Your task to perform on an android device: open app "Skype" (install if not already installed) Image 0: 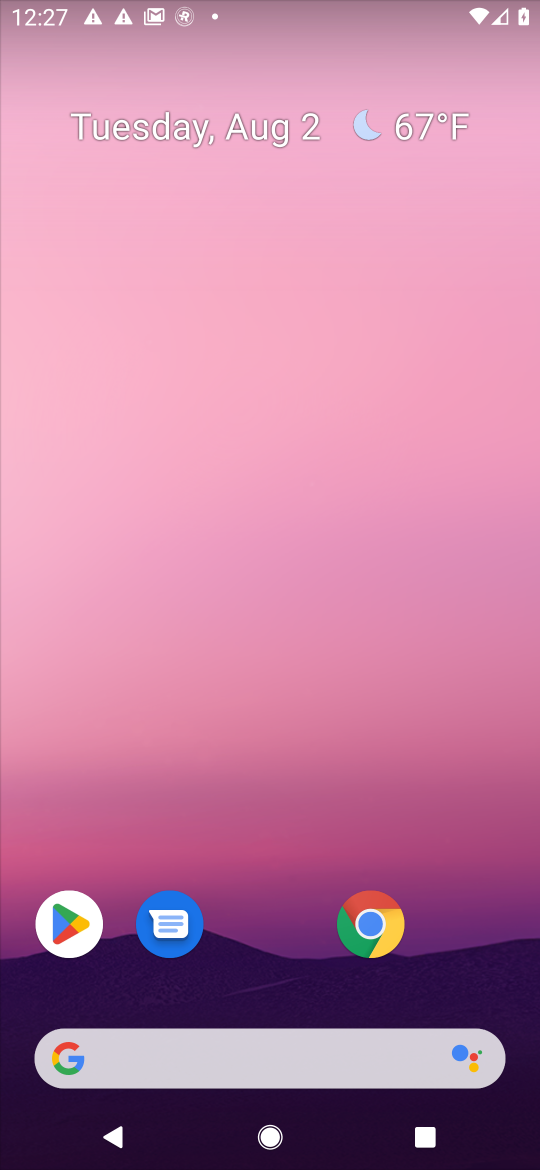
Step 0: press home button
Your task to perform on an android device: open app "Skype" (install if not already installed) Image 1: 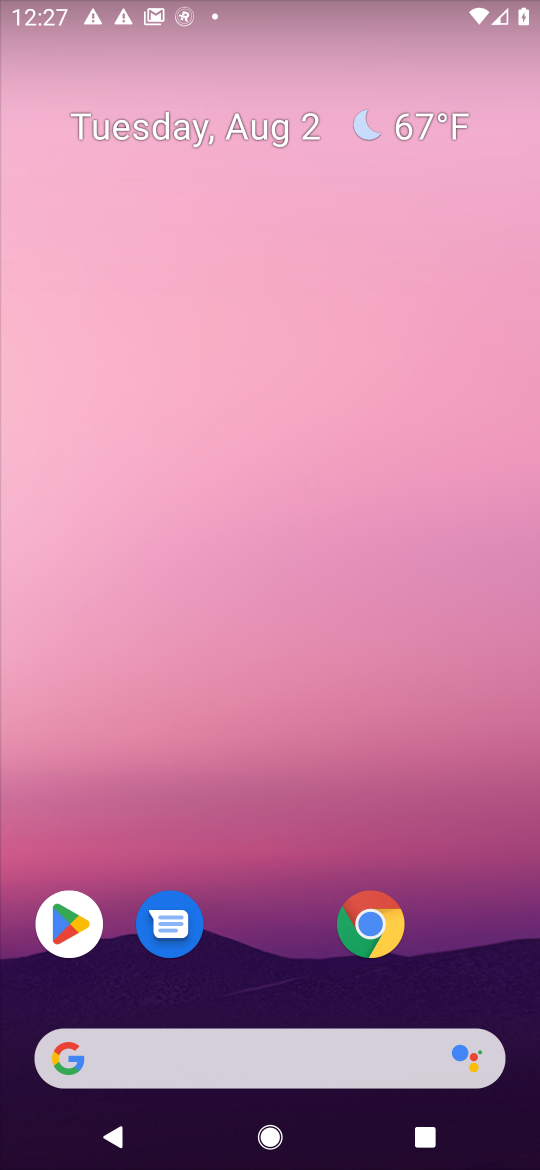
Step 1: click (57, 913)
Your task to perform on an android device: open app "Skype" (install if not already installed) Image 2: 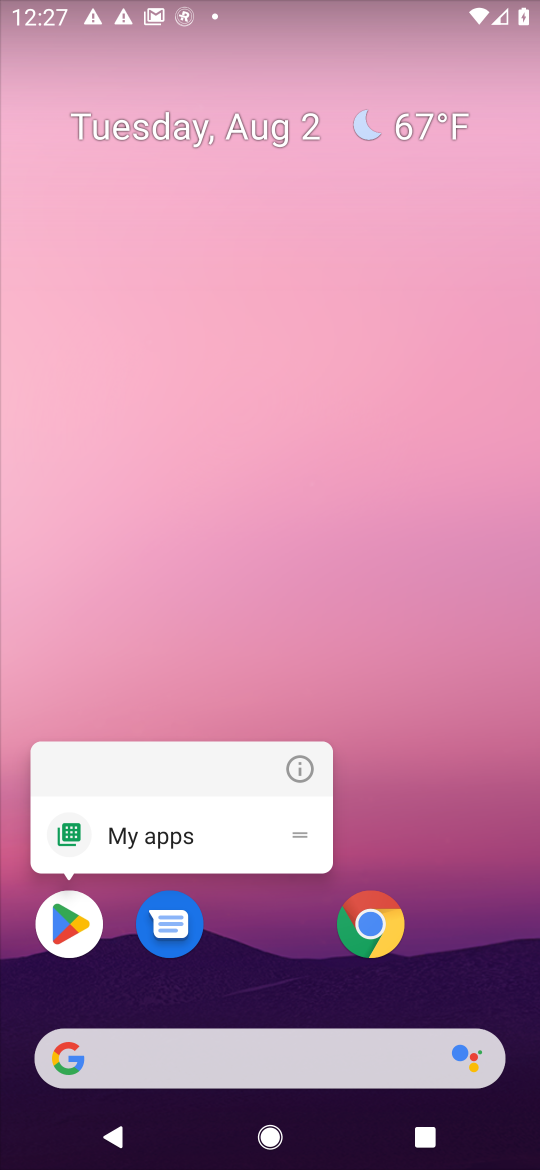
Step 2: click (70, 916)
Your task to perform on an android device: open app "Skype" (install if not already installed) Image 3: 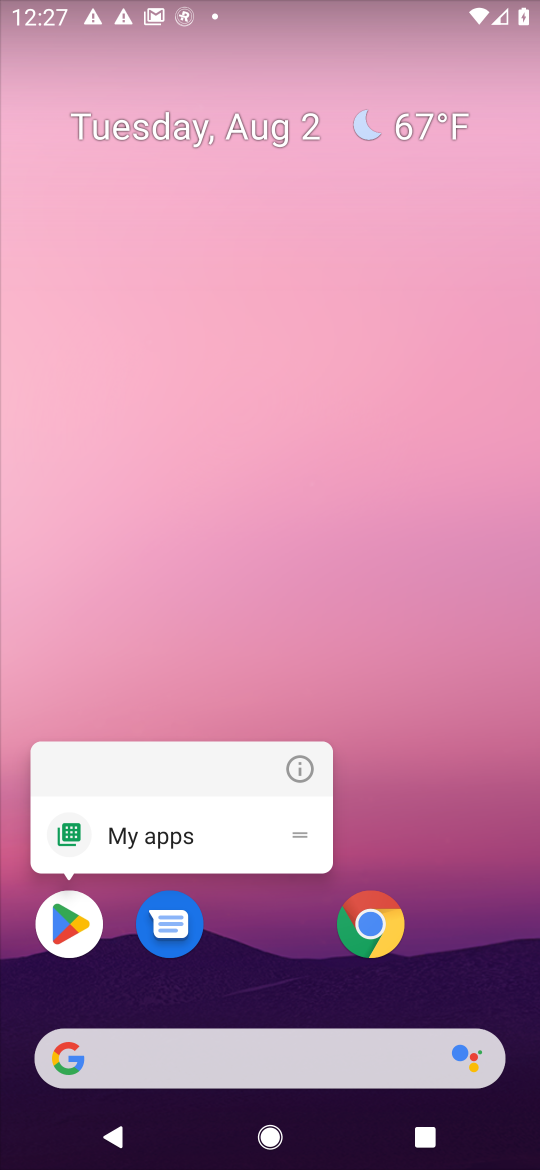
Step 3: click (67, 914)
Your task to perform on an android device: open app "Skype" (install if not already installed) Image 4: 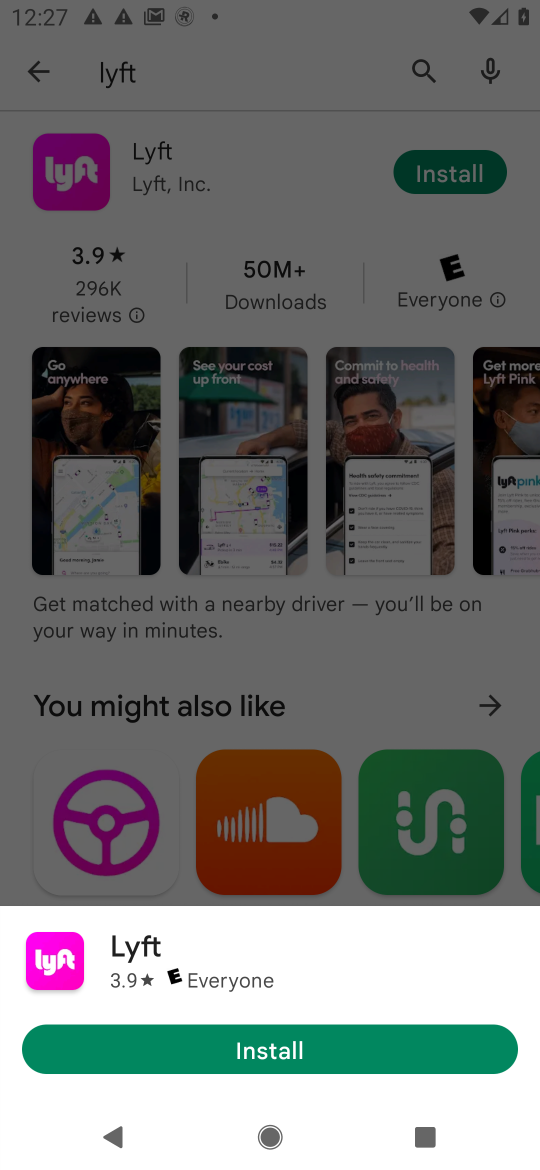
Step 4: click (456, 517)
Your task to perform on an android device: open app "Skype" (install if not already installed) Image 5: 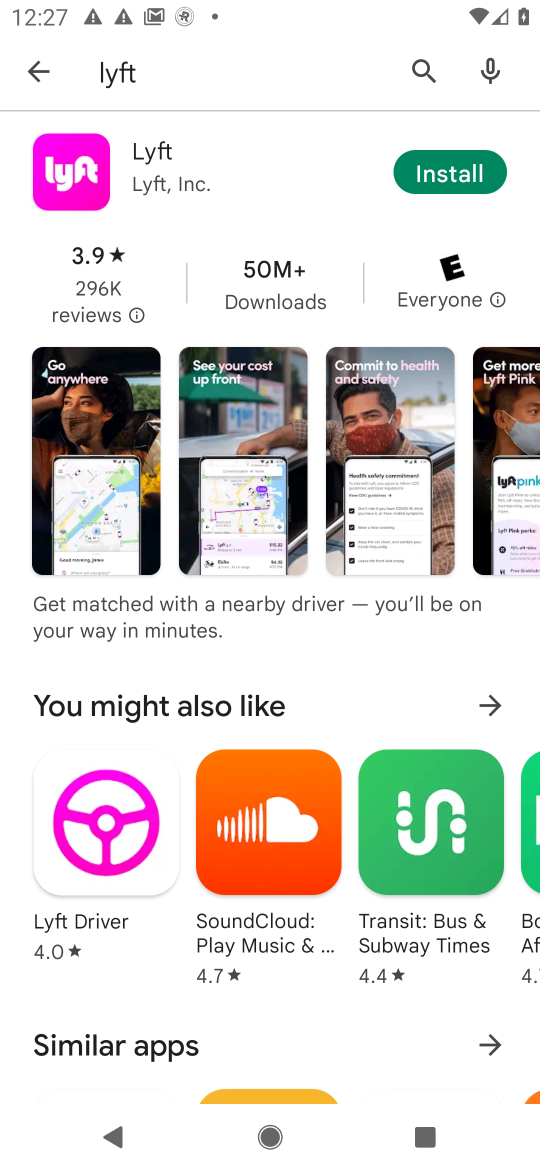
Step 5: click (428, 71)
Your task to perform on an android device: open app "Skype" (install if not already installed) Image 6: 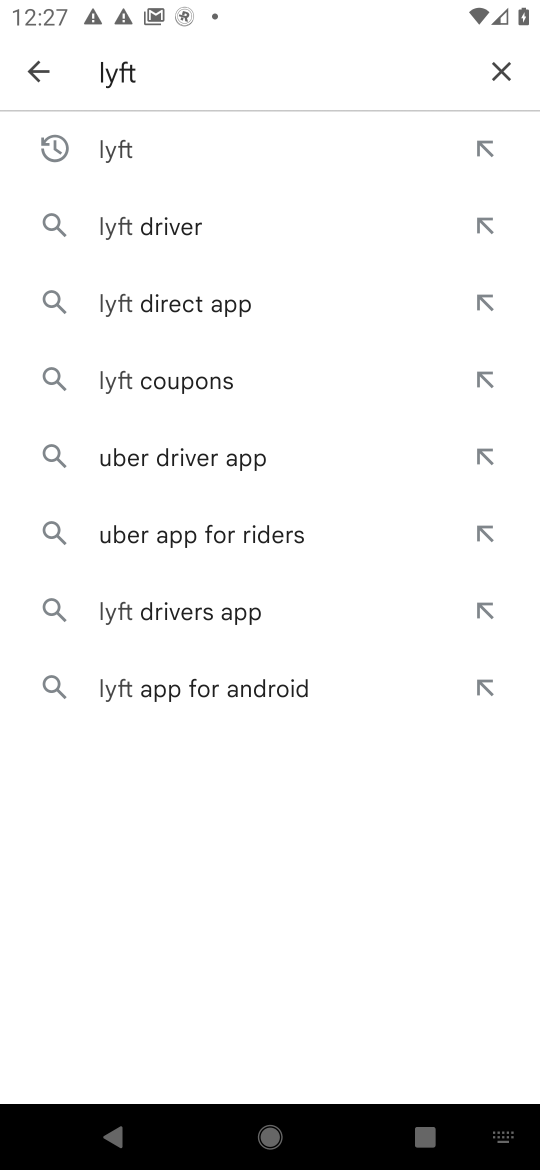
Step 6: click (490, 61)
Your task to perform on an android device: open app "Skype" (install if not already installed) Image 7: 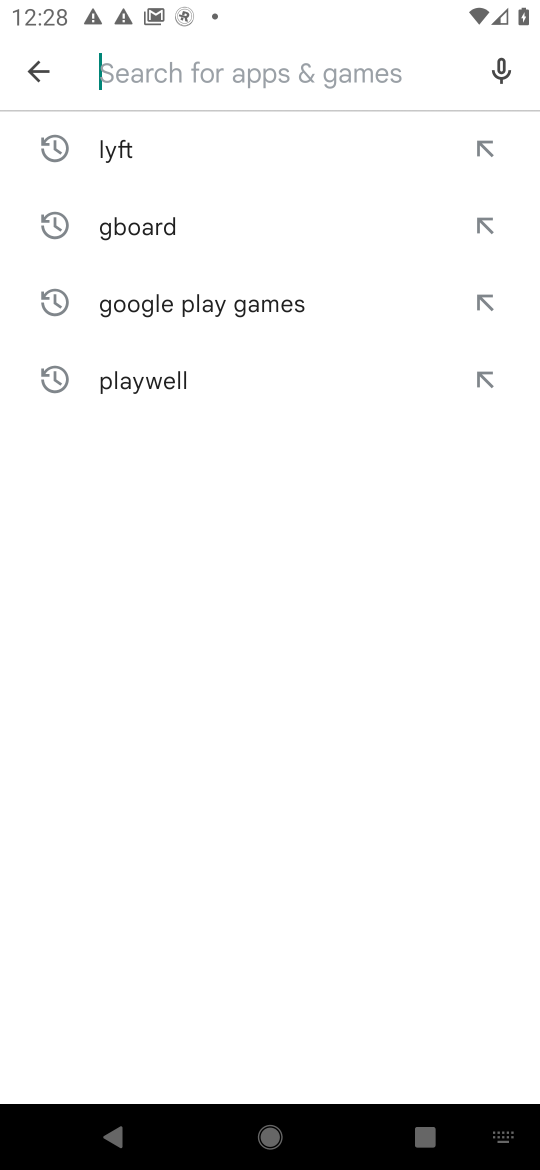
Step 7: type "Skype"
Your task to perform on an android device: open app "Skype" (install if not already installed) Image 8: 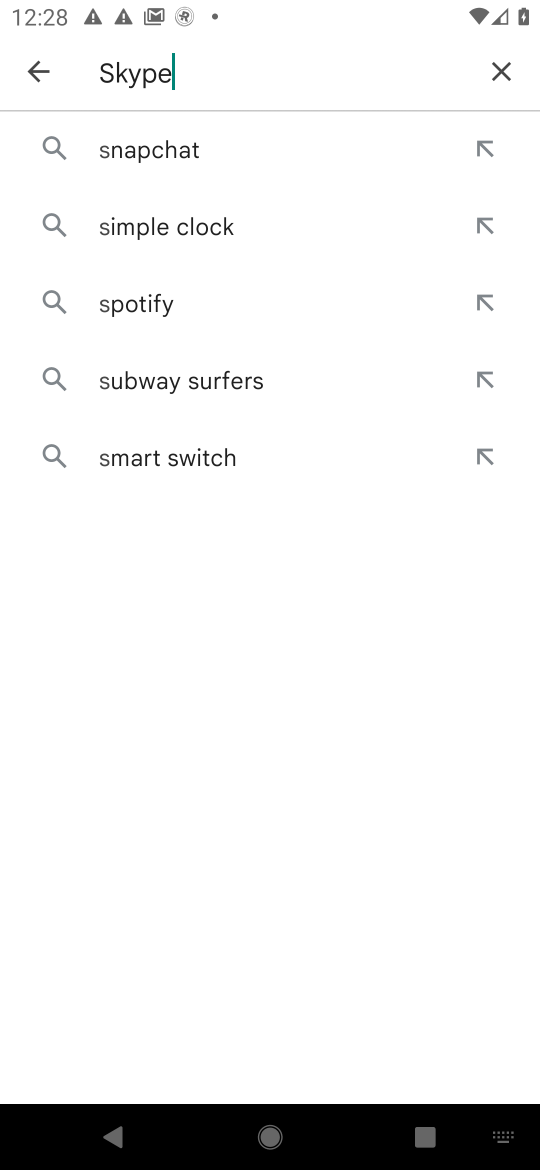
Step 8: type ""
Your task to perform on an android device: open app "Skype" (install if not already installed) Image 9: 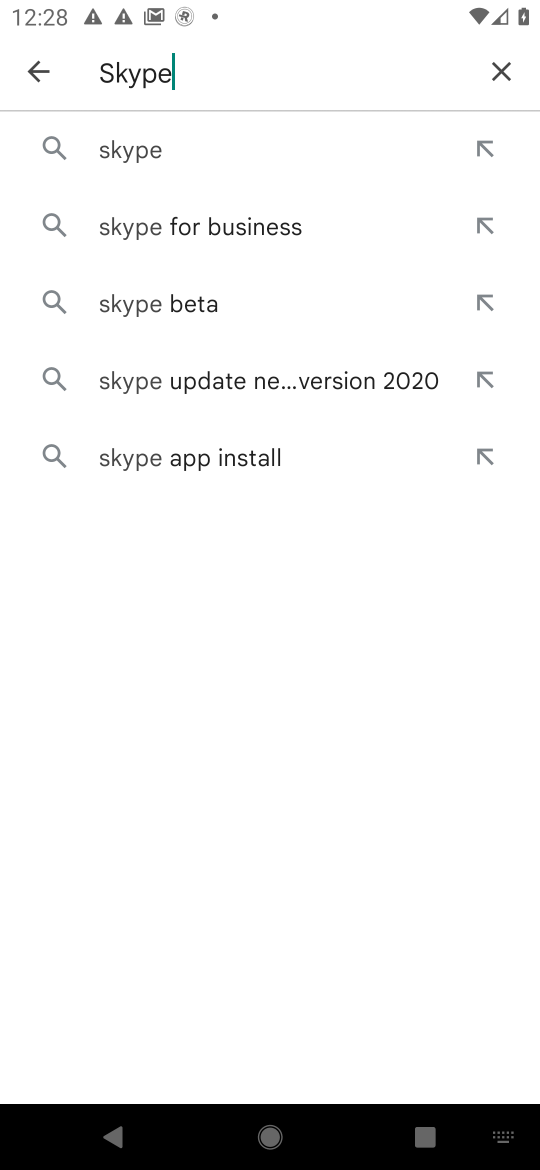
Step 9: click (131, 149)
Your task to perform on an android device: open app "Skype" (install if not already installed) Image 10: 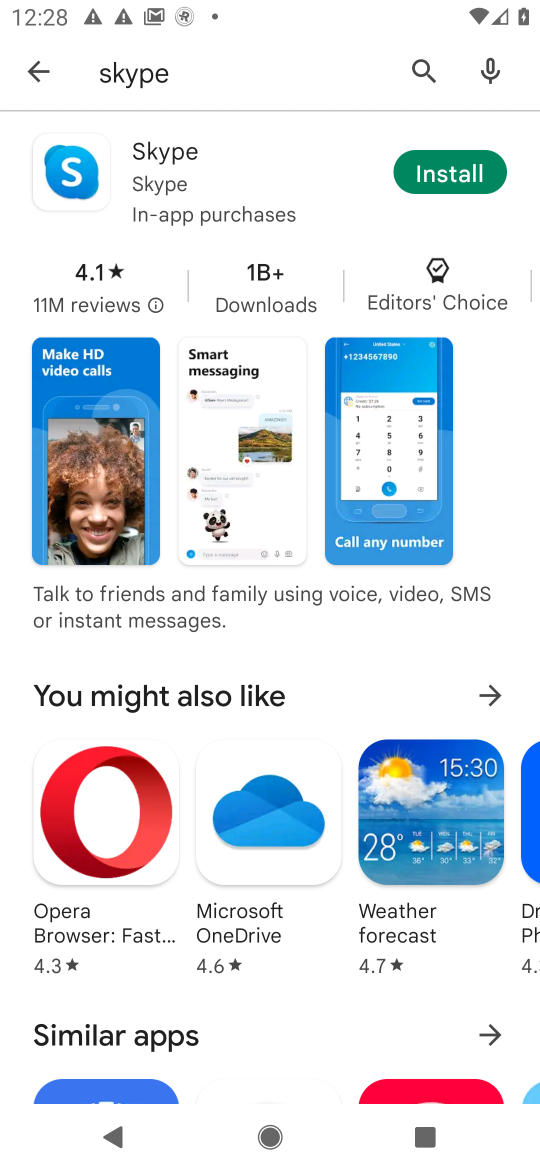
Step 10: click (440, 177)
Your task to perform on an android device: open app "Skype" (install if not already installed) Image 11: 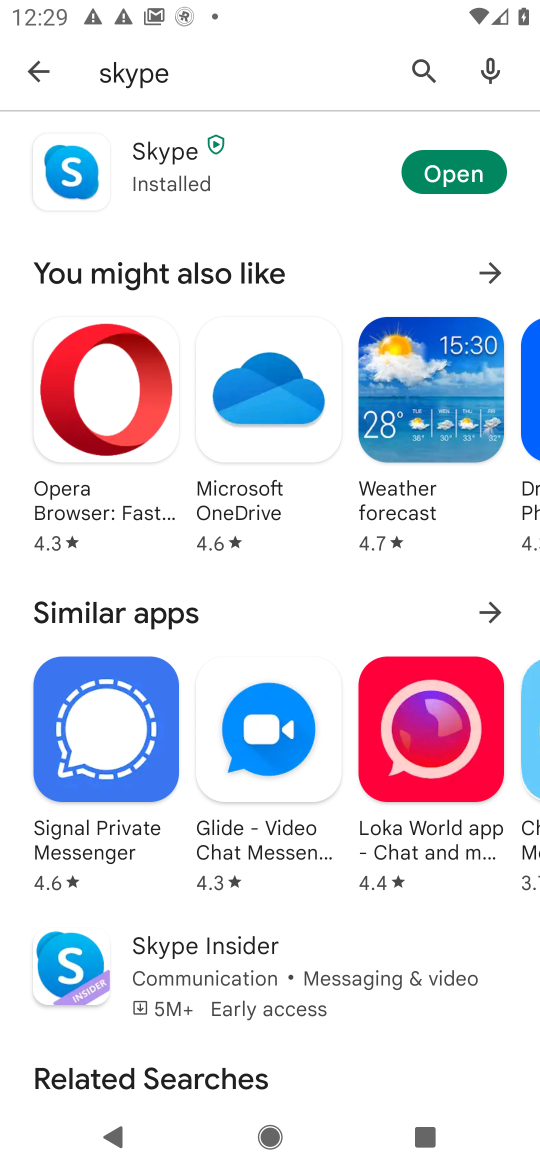
Step 11: click (461, 183)
Your task to perform on an android device: open app "Skype" (install if not already installed) Image 12: 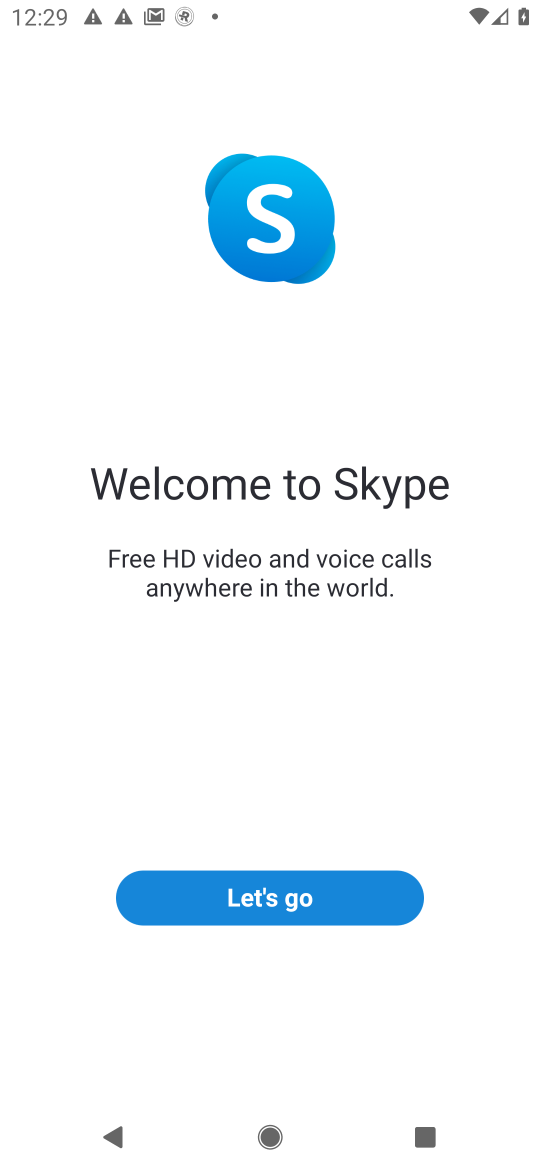
Step 12: click (279, 901)
Your task to perform on an android device: open app "Skype" (install if not already installed) Image 13: 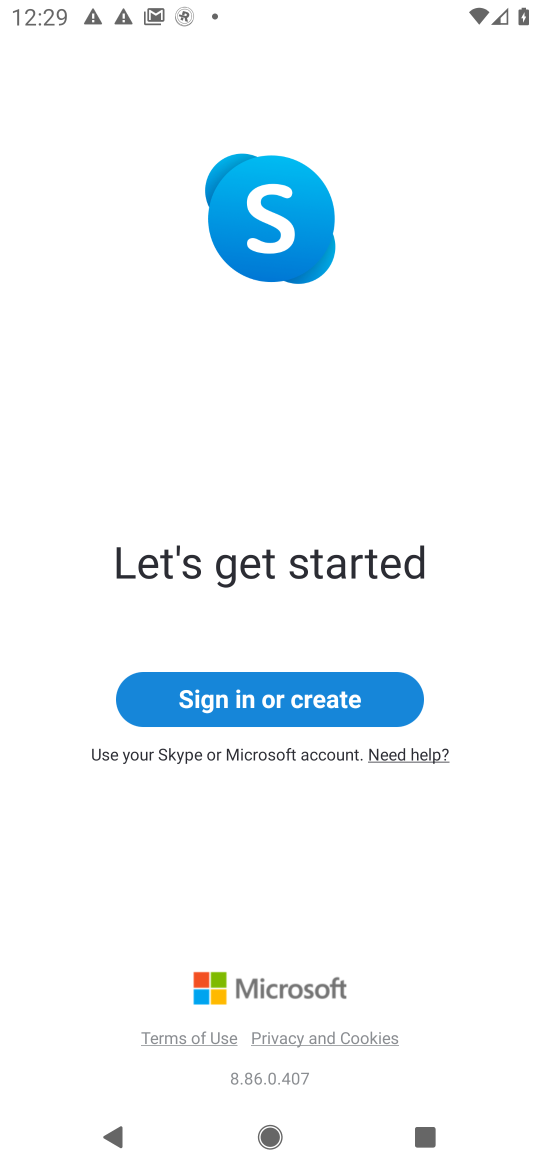
Step 13: click (271, 695)
Your task to perform on an android device: open app "Skype" (install if not already installed) Image 14: 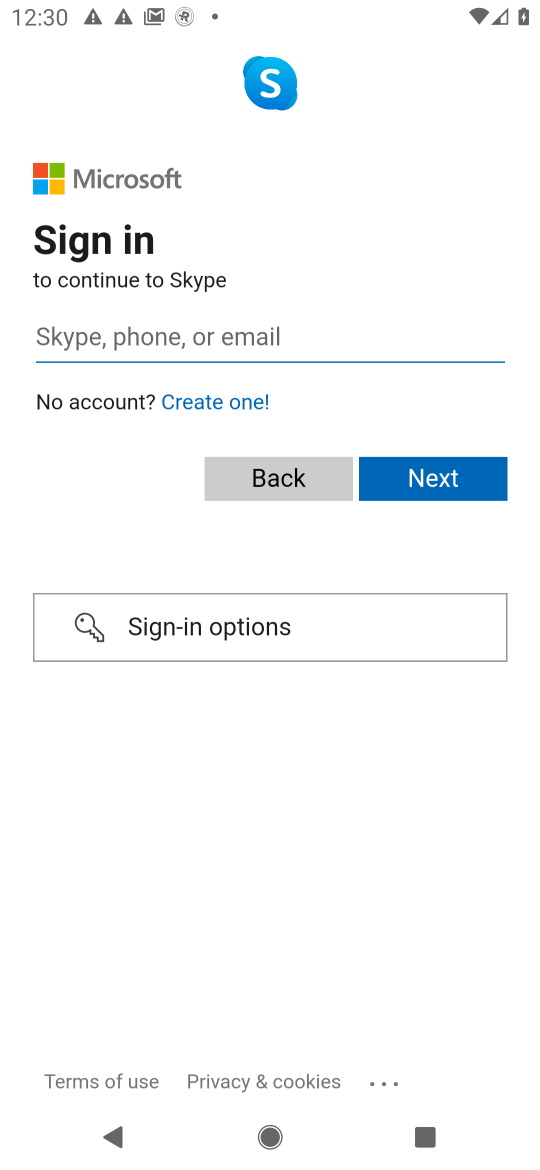
Step 14: click (188, 625)
Your task to perform on an android device: open app "Skype" (install if not already installed) Image 15: 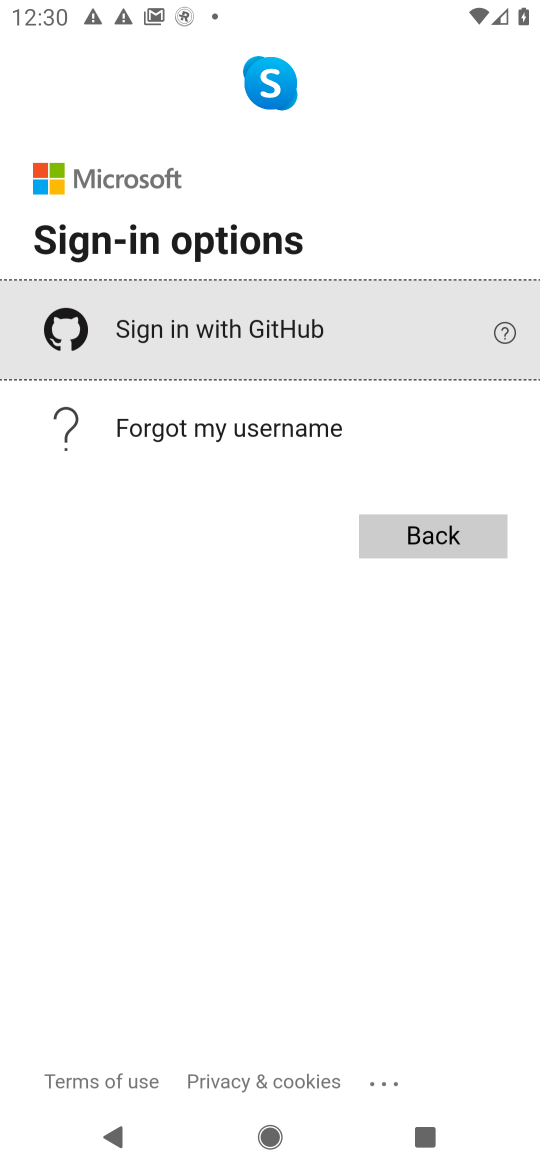
Step 15: task complete